Your task to perform on an android device: add a contact in the contacts app Image 0: 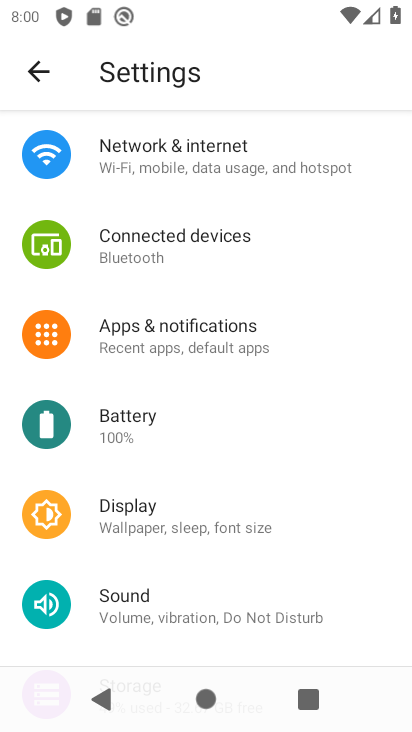
Step 0: press home button
Your task to perform on an android device: add a contact in the contacts app Image 1: 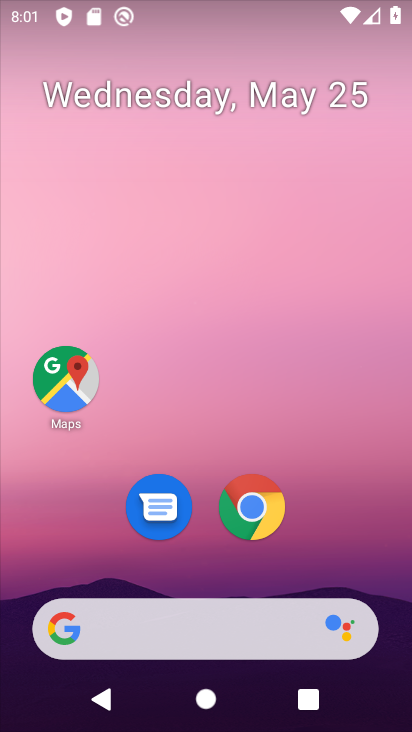
Step 1: drag from (231, 593) to (178, 148)
Your task to perform on an android device: add a contact in the contacts app Image 2: 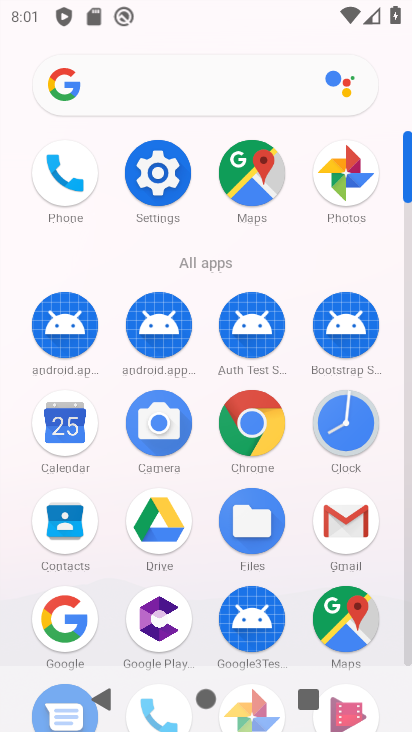
Step 2: drag from (110, 586) to (101, 265)
Your task to perform on an android device: add a contact in the contacts app Image 3: 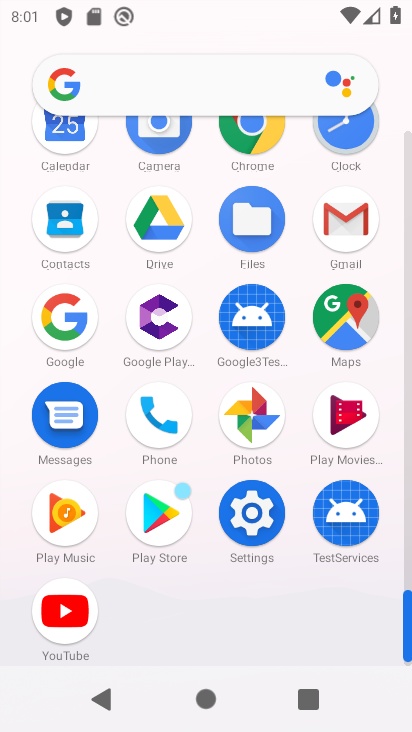
Step 3: click (165, 436)
Your task to perform on an android device: add a contact in the contacts app Image 4: 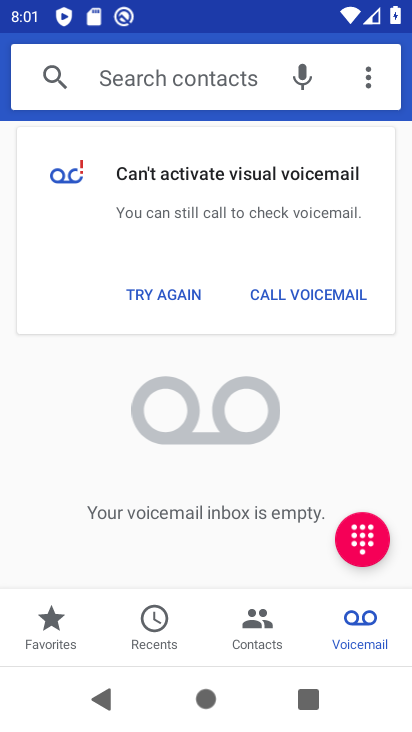
Step 4: click (263, 624)
Your task to perform on an android device: add a contact in the contacts app Image 5: 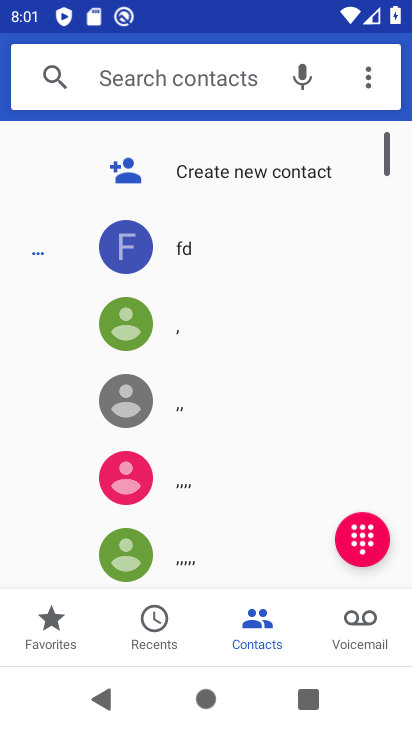
Step 5: click (239, 178)
Your task to perform on an android device: add a contact in the contacts app Image 6: 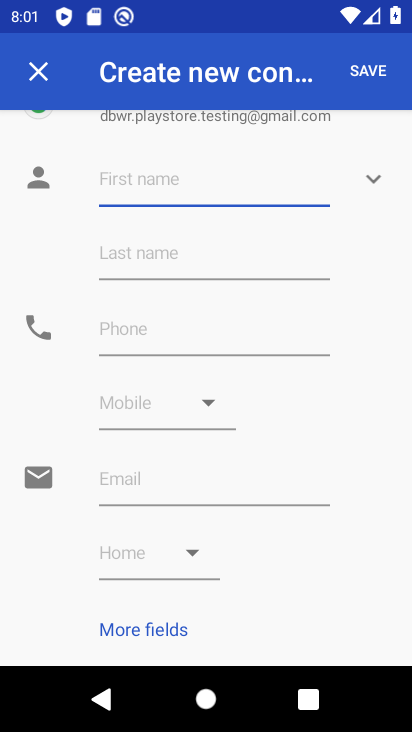
Step 6: type "jio"
Your task to perform on an android device: add a contact in the contacts app Image 7: 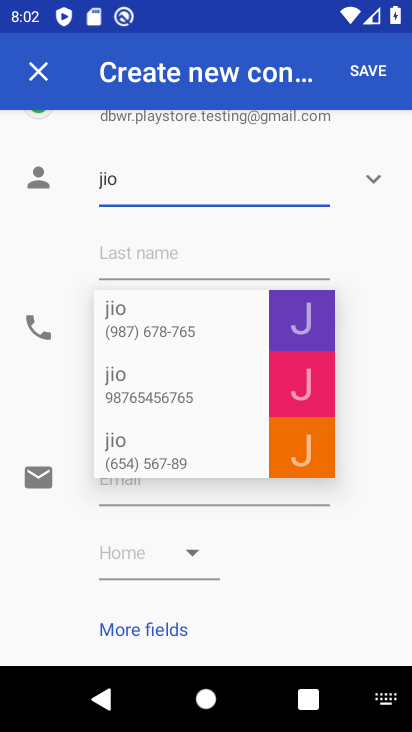
Step 7: click (243, 354)
Your task to perform on an android device: add a contact in the contacts app Image 8: 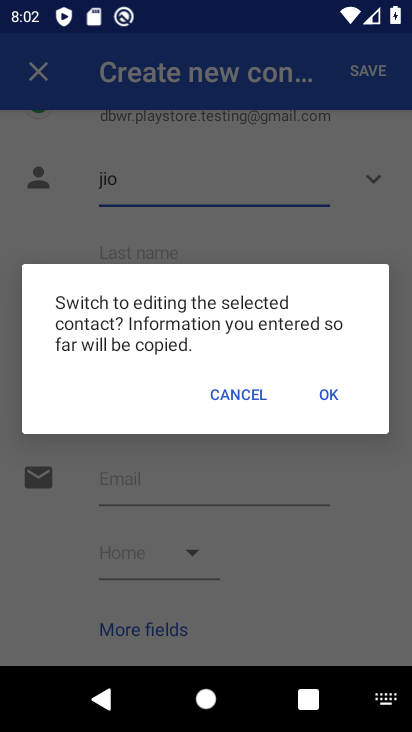
Step 8: click (336, 394)
Your task to perform on an android device: add a contact in the contacts app Image 9: 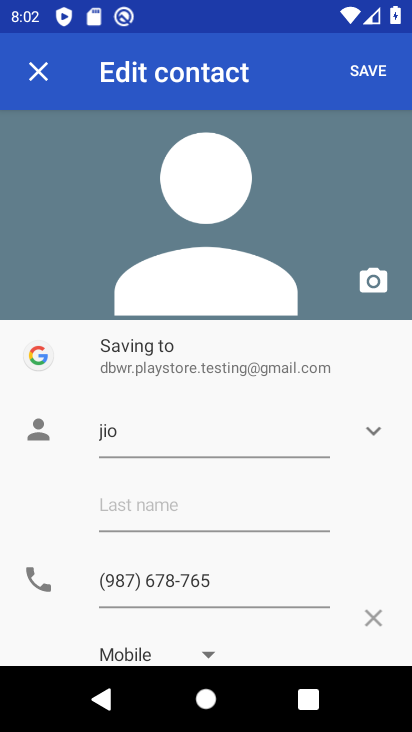
Step 9: click (368, 81)
Your task to perform on an android device: add a contact in the contacts app Image 10: 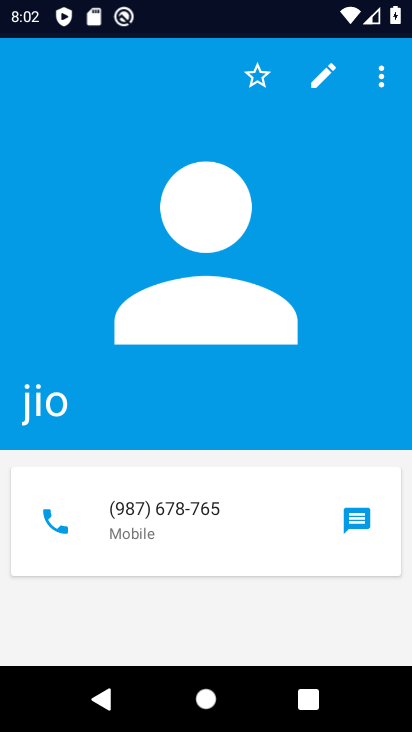
Step 10: task complete